Your task to perform on an android device: turn off notifications in google photos Image 0: 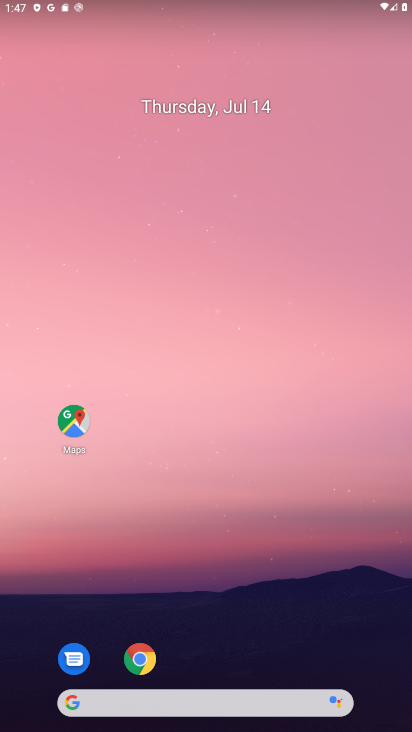
Step 0: drag from (185, 671) to (131, 134)
Your task to perform on an android device: turn off notifications in google photos Image 1: 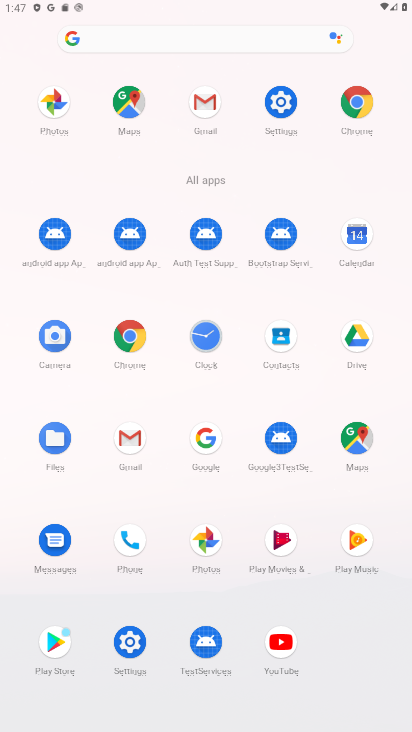
Step 1: click (202, 534)
Your task to perform on an android device: turn off notifications in google photos Image 2: 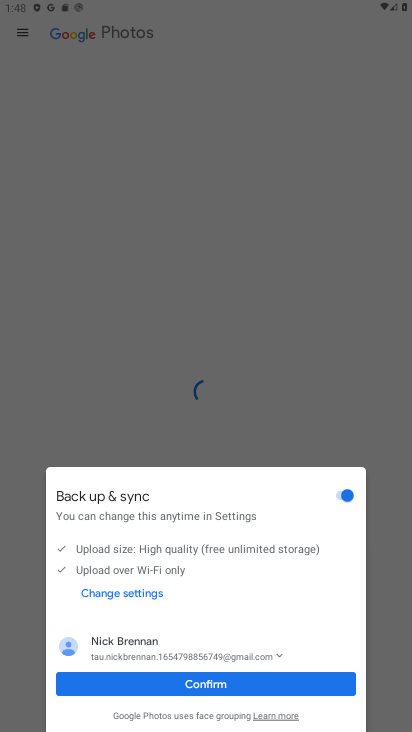
Step 2: click (240, 694)
Your task to perform on an android device: turn off notifications in google photos Image 3: 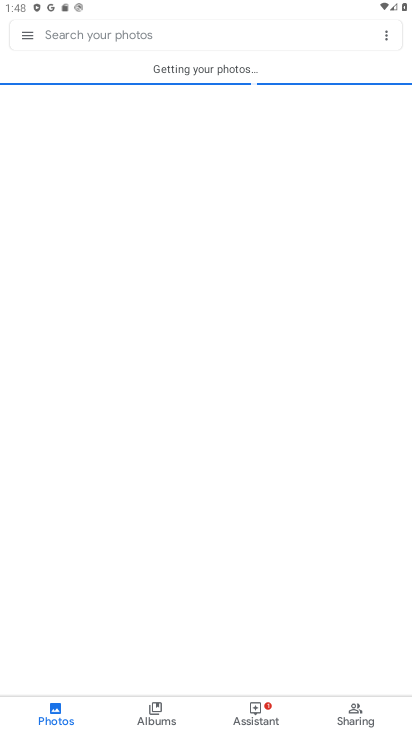
Step 3: drag from (21, 34) to (54, 377)
Your task to perform on an android device: turn off notifications in google photos Image 4: 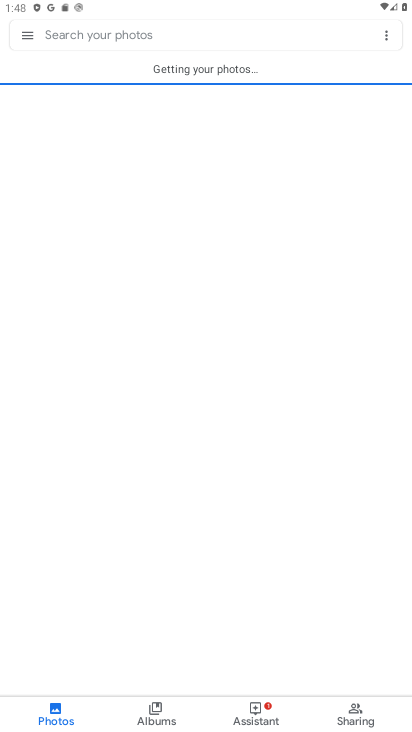
Step 4: click (33, 32)
Your task to perform on an android device: turn off notifications in google photos Image 5: 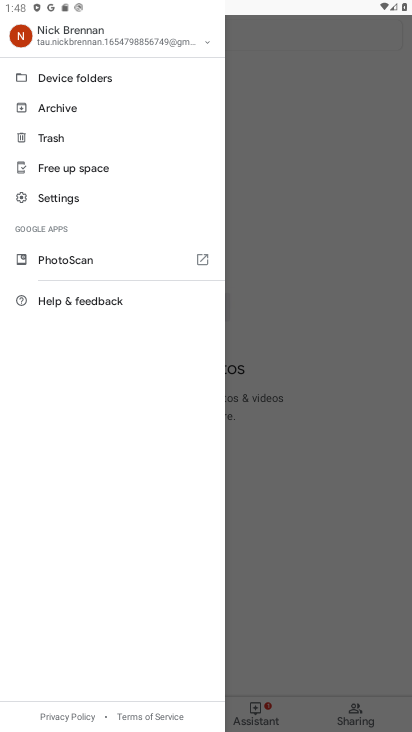
Step 5: click (43, 197)
Your task to perform on an android device: turn off notifications in google photos Image 6: 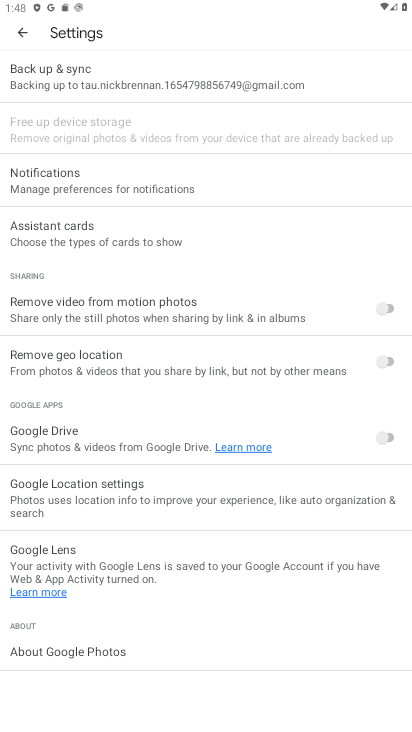
Step 6: click (35, 184)
Your task to perform on an android device: turn off notifications in google photos Image 7: 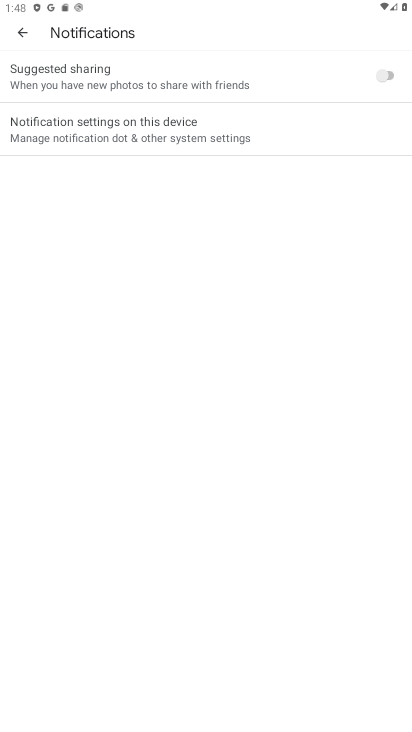
Step 7: click (216, 134)
Your task to perform on an android device: turn off notifications in google photos Image 8: 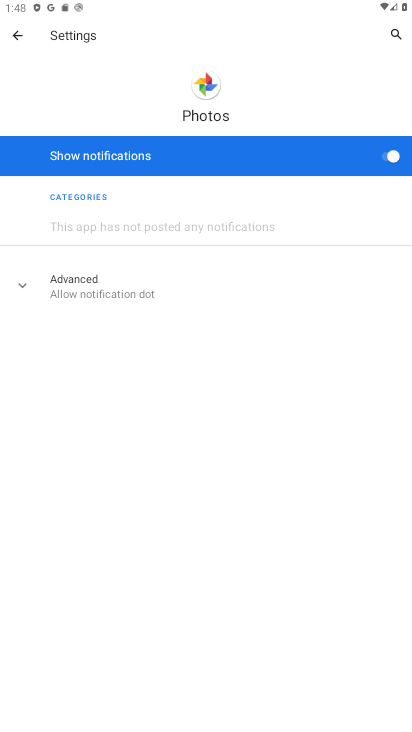
Step 8: click (379, 153)
Your task to perform on an android device: turn off notifications in google photos Image 9: 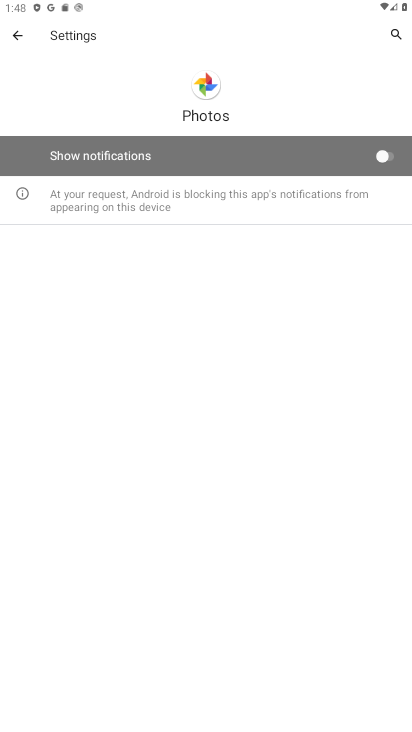
Step 9: task complete